Your task to perform on an android device: See recent photos Image 0: 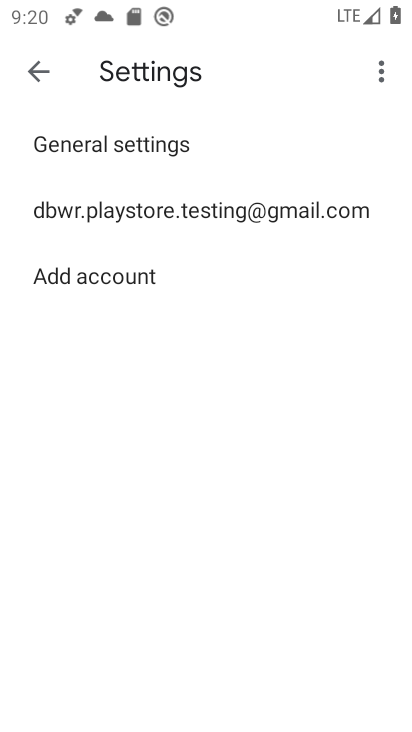
Step 0: press home button
Your task to perform on an android device: See recent photos Image 1: 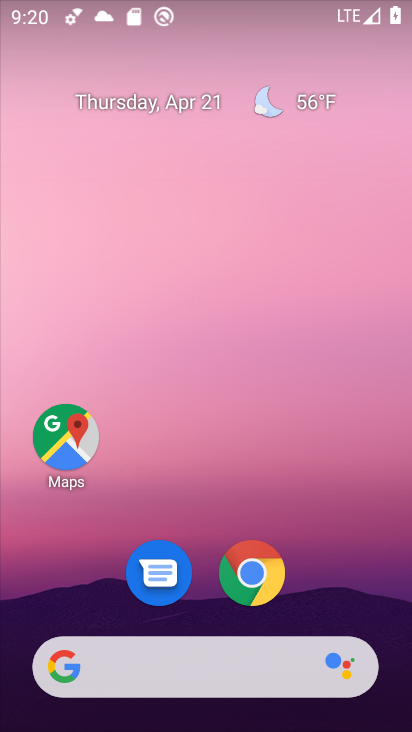
Step 1: drag from (349, 522) to (371, 187)
Your task to perform on an android device: See recent photos Image 2: 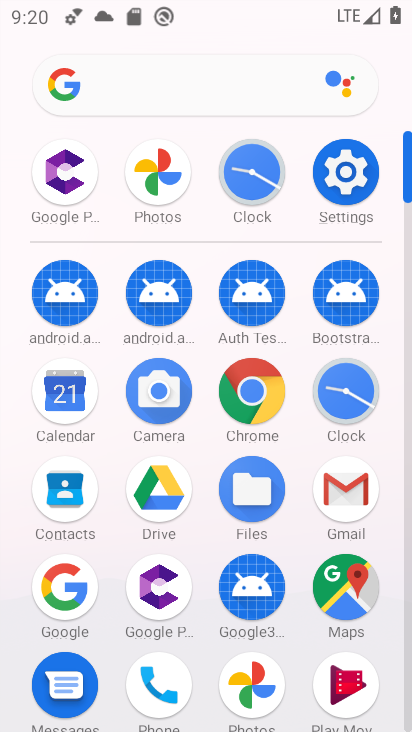
Step 2: click (267, 677)
Your task to perform on an android device: See recent photos Image 3: 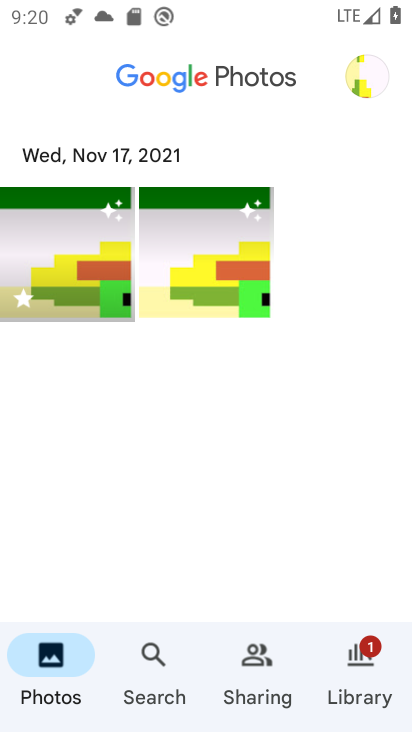
Step 3: click (66, 246)
Your task to perform on an android device: See recent photos Image 4: 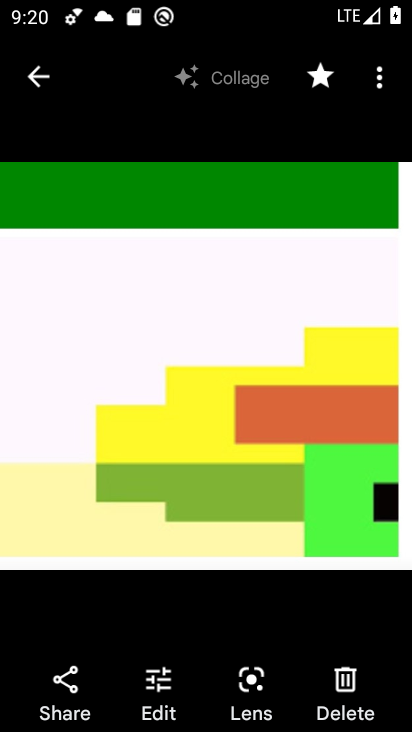
Step 4: task complete